Your task to perform on an android device: What's on my calendar today? Image 0: 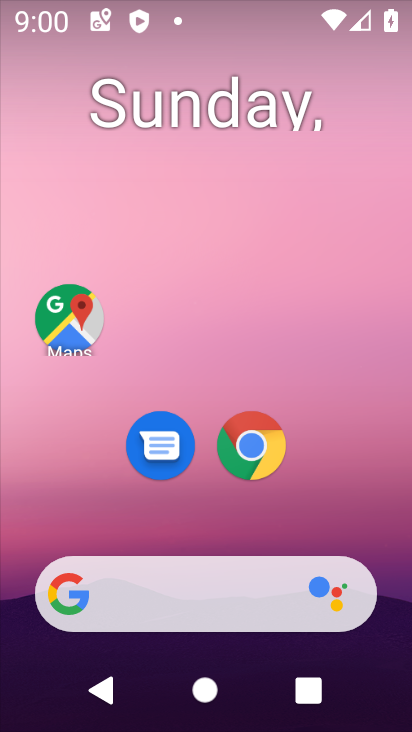
Step 0: drag from (391, 591) to (343, 135)
Your task to perform on an android device: What's on my calendar today? Image 1: 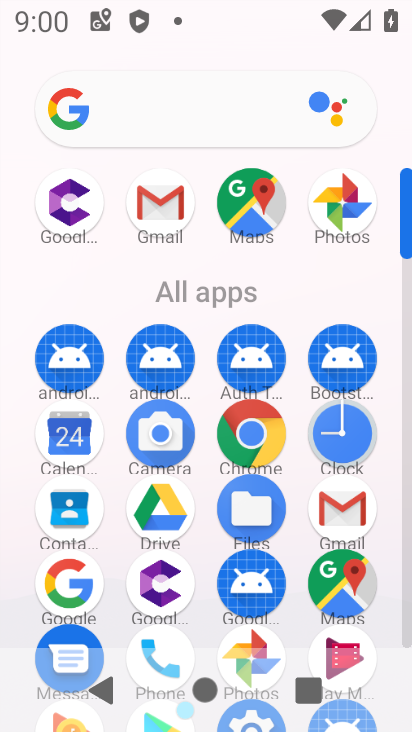
Step 1: click (407, 632)
Your task to perform on an android device: What's on my calendar today? Image 2: 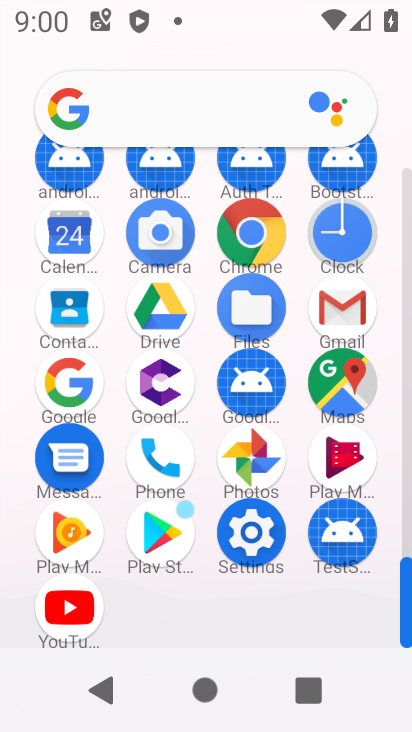
Step 2: click (64, 227)
Your task to perform on an android device: What's on my calendar today? Image 3: 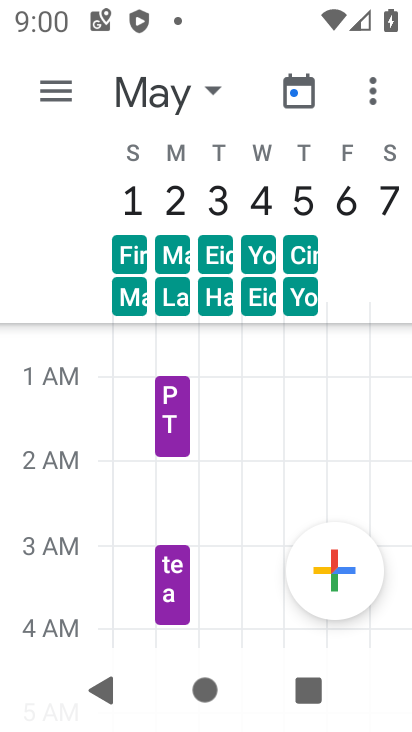
Step 3: click (54, 94)
Your task to perform on an android device: What's on my calendar today? Image 4: 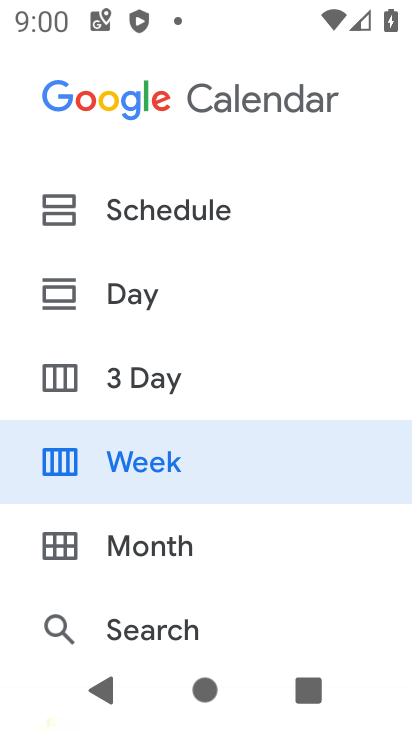
Step 4: click (136, 289)
Your task to perform on an android device: What's on my calendar today? Image 5: 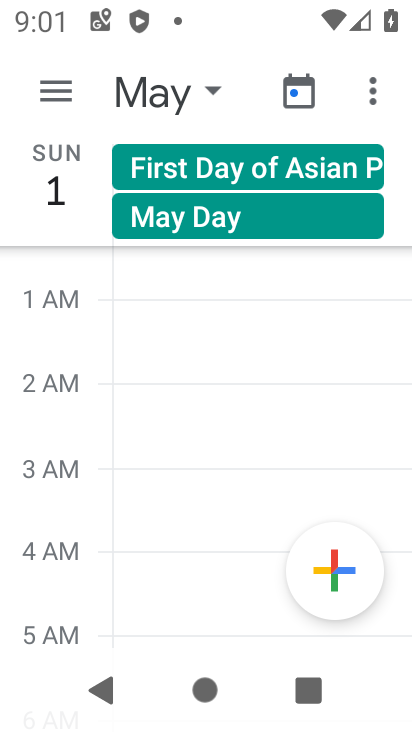
Step 5: drag from (257, 531) to (249, 357)
Your task to perform on an android device: What's on my calendar today? Image 6: 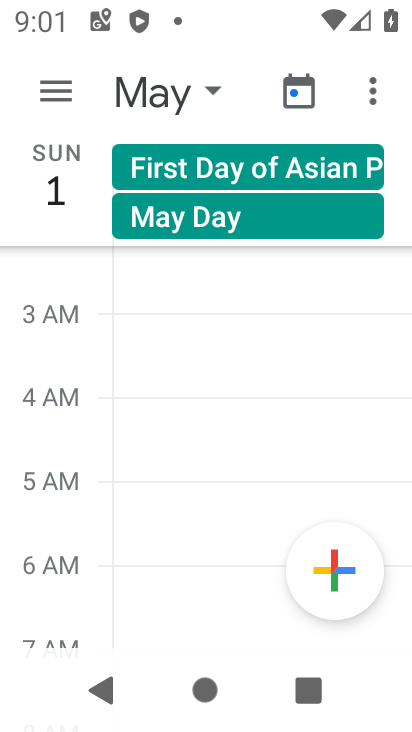
Step 6: click (205, 92)
Your task to perform on an android device: What's on my calendar today? Image 7: 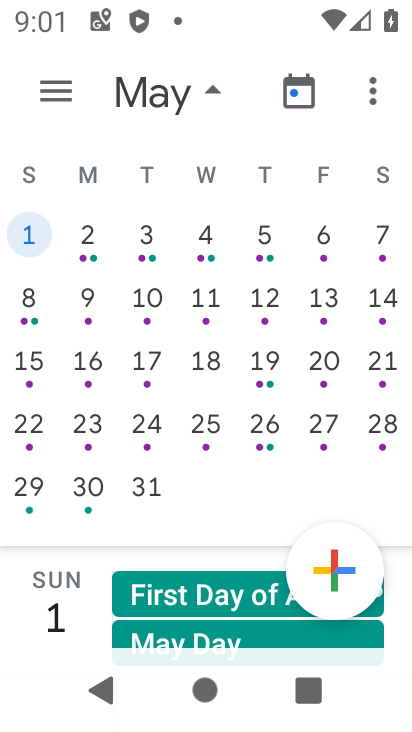
Step 7: task complete